Your task to perform on an android device: Go to eBay Image 0: 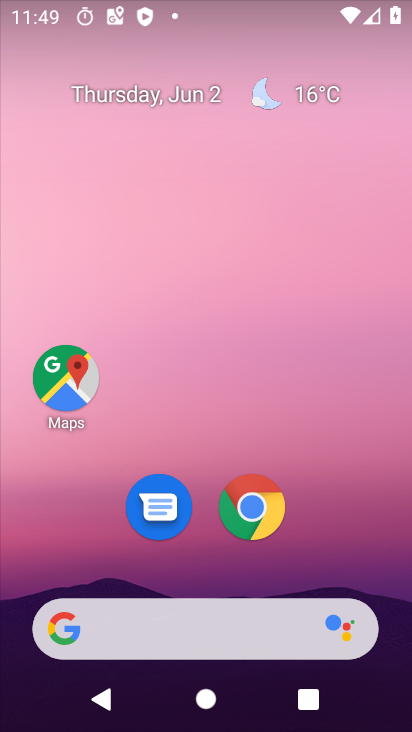
Step 0: drag from (410, 607) to (351, 63)
Your task to perform on an android device: Go to eBay Image 1: 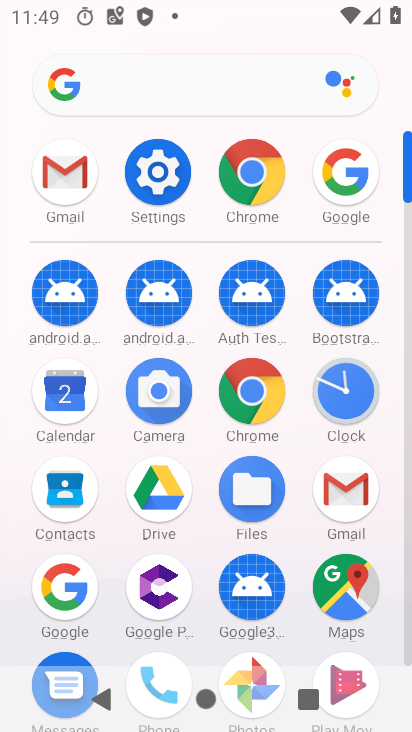
Step 1: click (64, 587)
Your task to perform on an android device: Go to eBay Image 2: 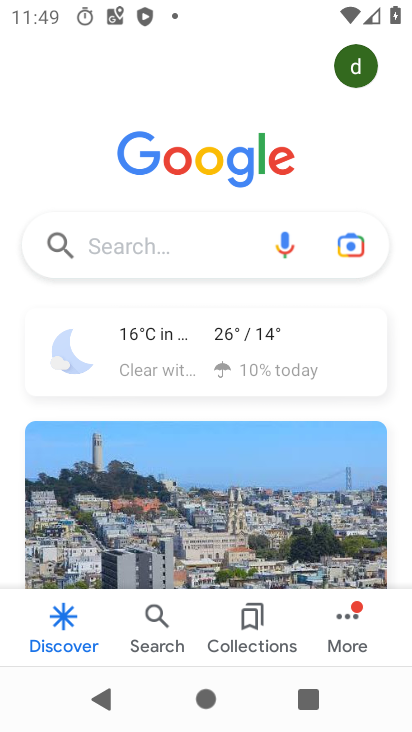
Step 2: click (165, 251)
Your task to perform on an android device: Go to eBay Image 3: 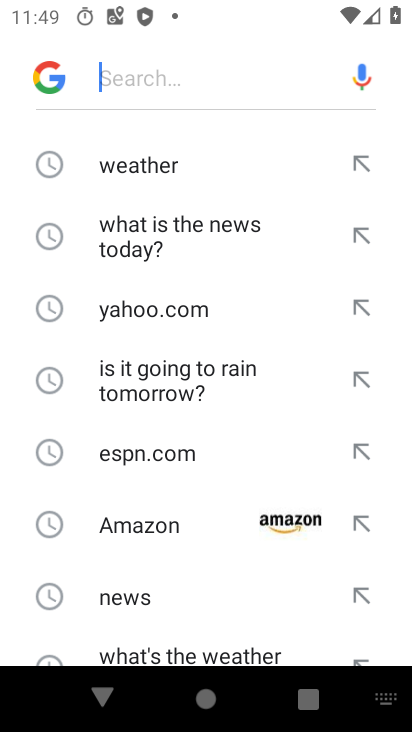
Step 3: drag from (137, 572) to (190, 236)
Your task to perform on an android device: Go to eBay Image 4: 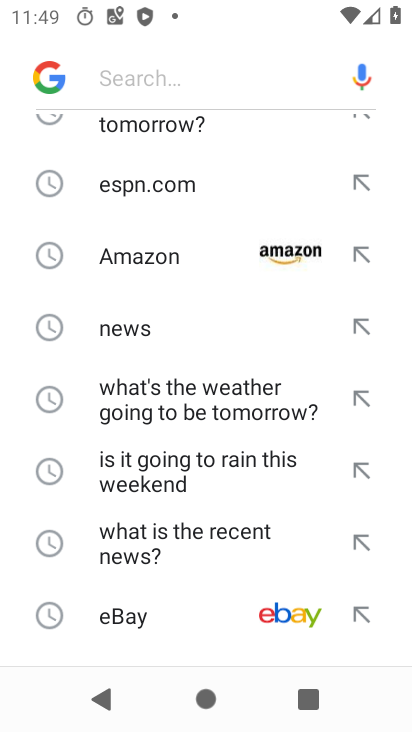
Step 4: click (200, 598)
Your task to perform on an android device: Go to eBay Image 5: 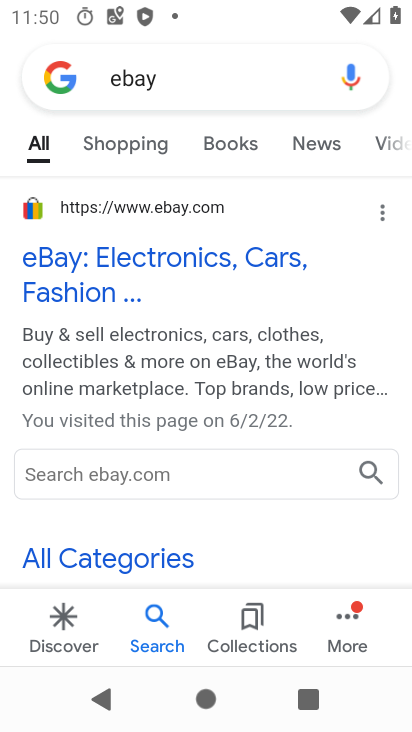
Step 5: task complete